Your task to perform on an android device: Do I have any events today? Image 0: 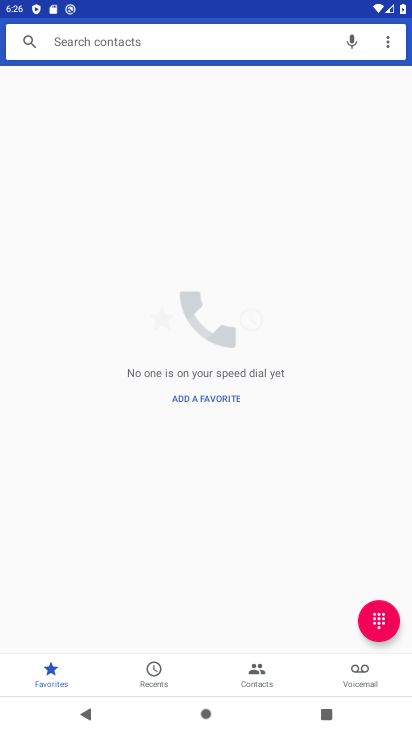
Step 0: press home button
Your task to perform on an android device: Do I have any events today? Image 1: 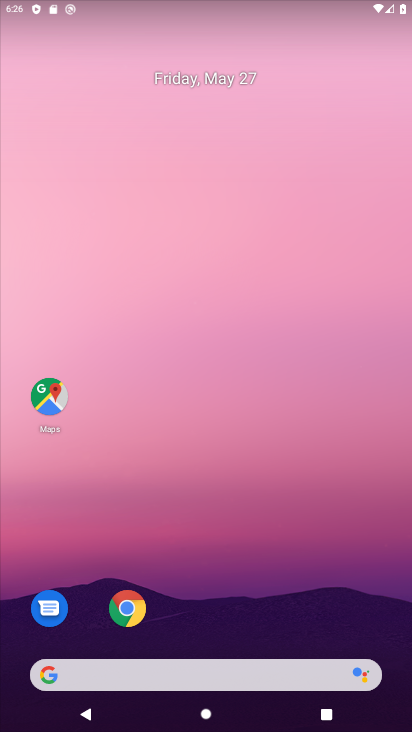
Step 1: drag from (205, 638) to (221, 89)
Your task to perform on an android device: Do I have any events today? Image 2: 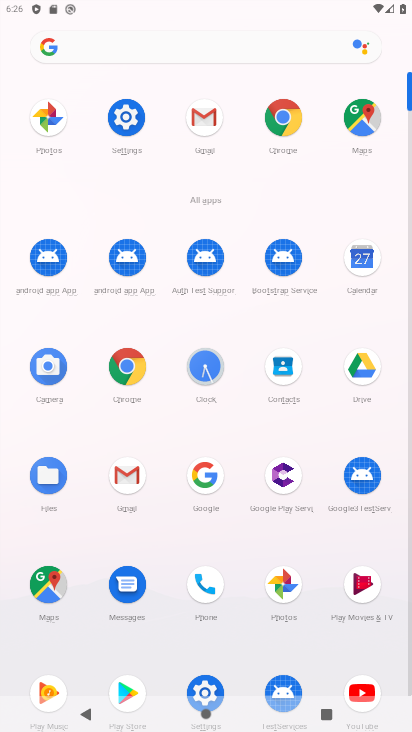
Step 2: click (360, 250)
Your task to perform on an android device: Do I have any events today? Image 3: 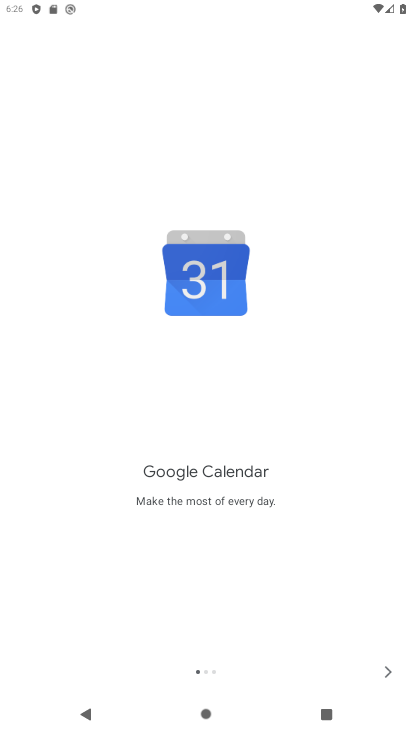
Step 3: click (378, 666)
Your task to perform on an android device: Do I have any events today? Image 4: 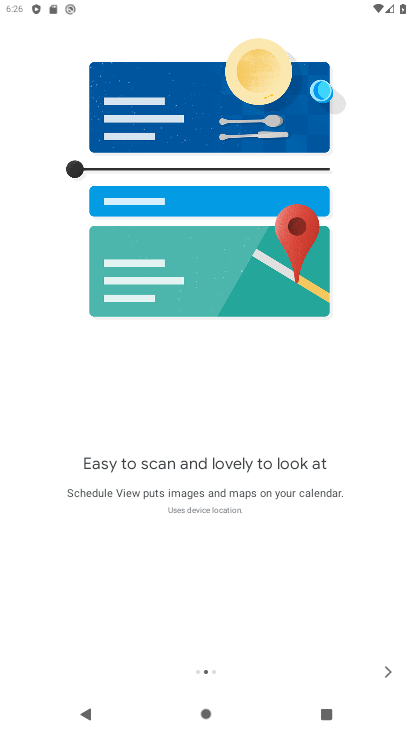
Step 4: click (381, 666)
Your task to perform on an android device: Do I have any events today? Image 5: 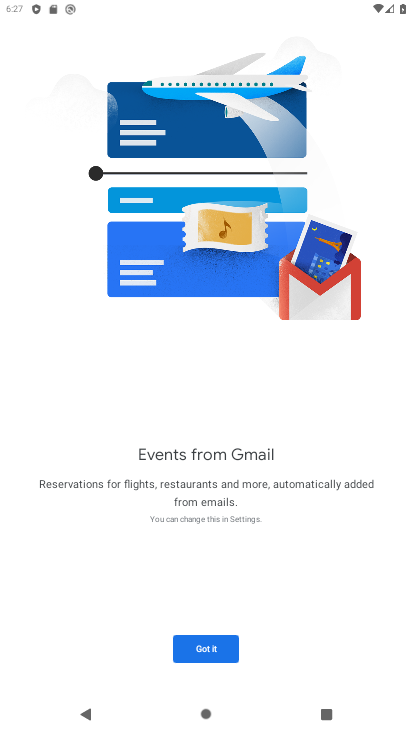
Step 5: click (207, 647)
Your task to perform on an android device: Do I have any events today? Image 6: 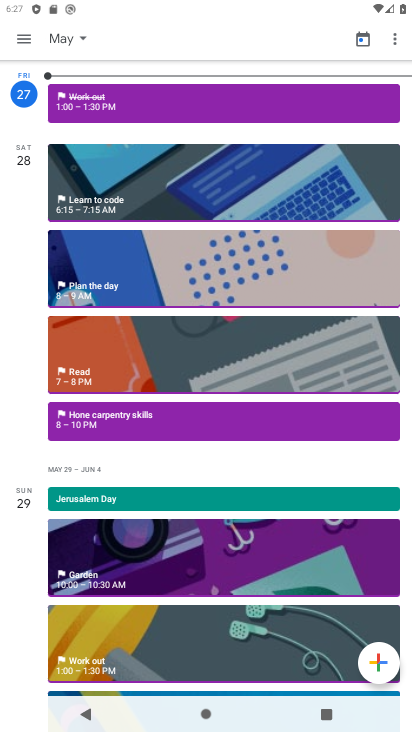
Step 6: click (31, 93)
Your task to perform on an android device: Do I have any events today? Image 7: 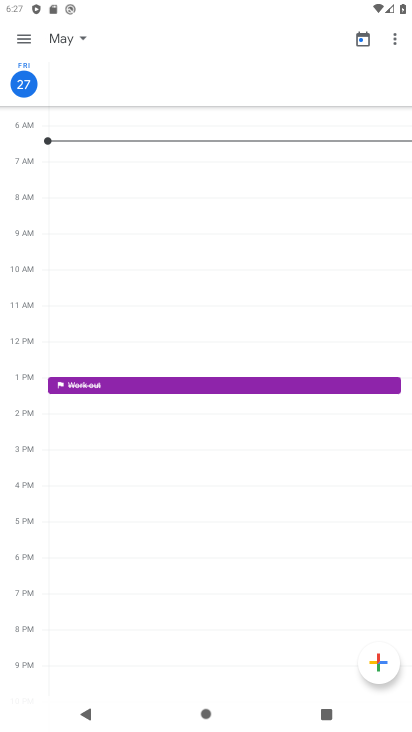
Step 7: task complete